Your task to perform on an android device: Open Youtube and go to "Your channel" Image 0: 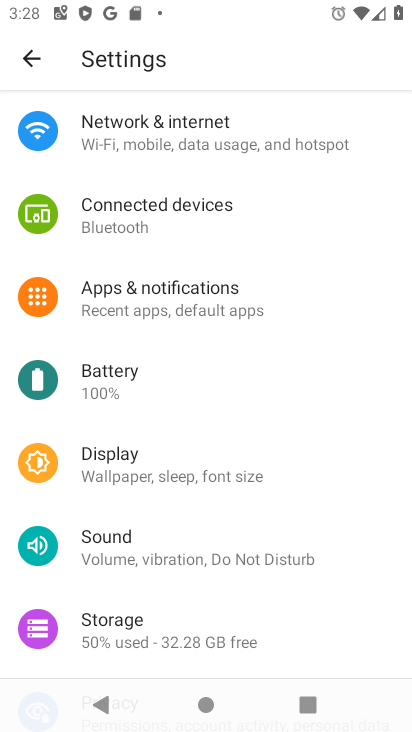
Step 0: press home button
Your task to perform on an android device: Open Youtube and go to "Your channel" Image 1: 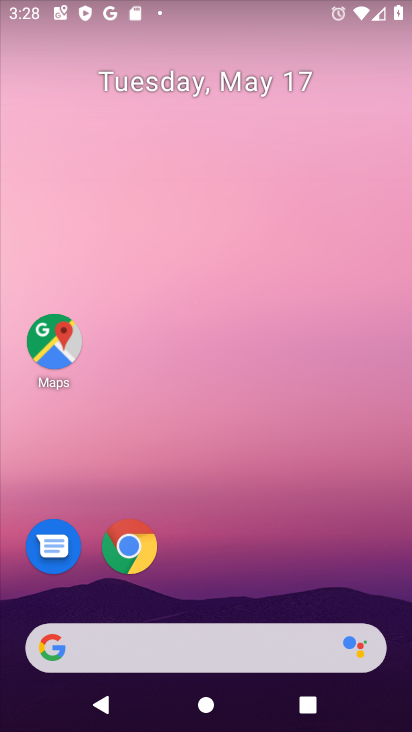
Step 1: drag from (396, 679) to (340, 296)
Your task to perform on an android device: Open Youtube and go to "Your channel" Image 2: 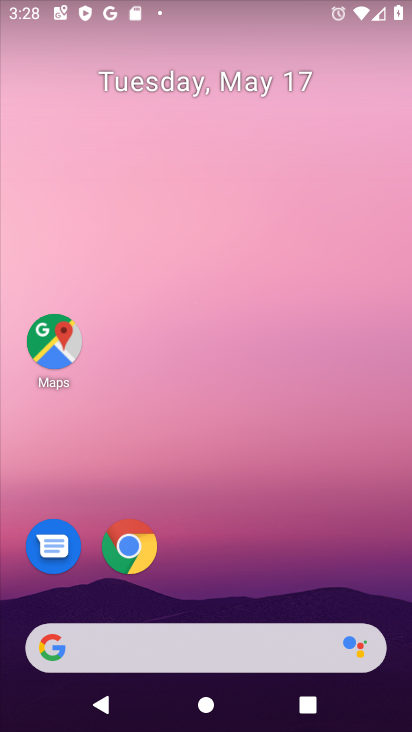
Step 2: drag from (399, 677) to (359, 341)
Your task to perform on an android device: Open Youtube and go to "Your channel" Image 3: 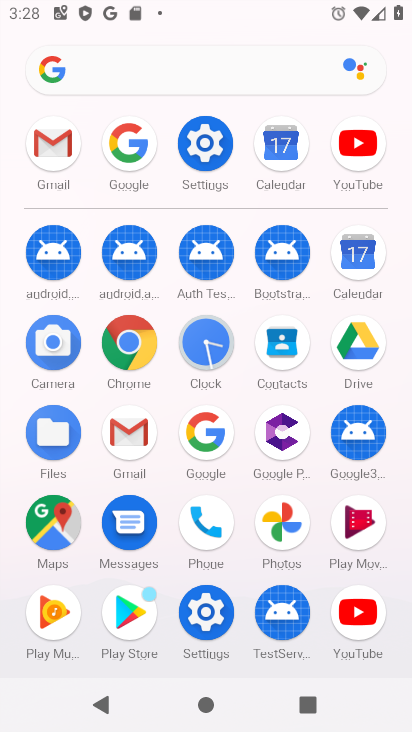
Step 3: click (361, 614)
Your task to perform on an android device: Open Youtube and go to "Your channel" Image 4: 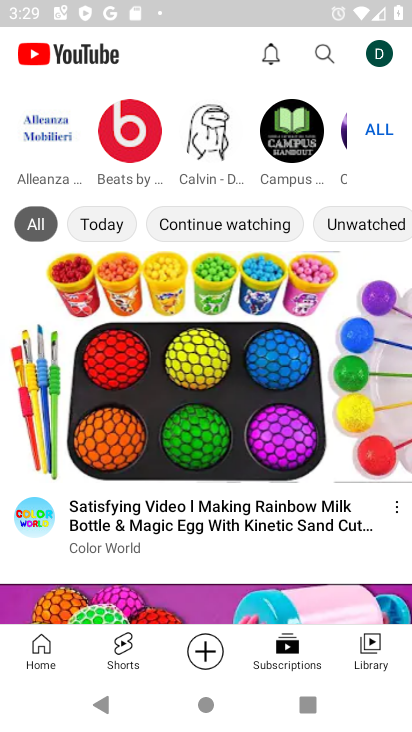
Step 4: click (373, 62)
Your task to perform on an android device: Open Youtube and go to "Your channel" Image 5: 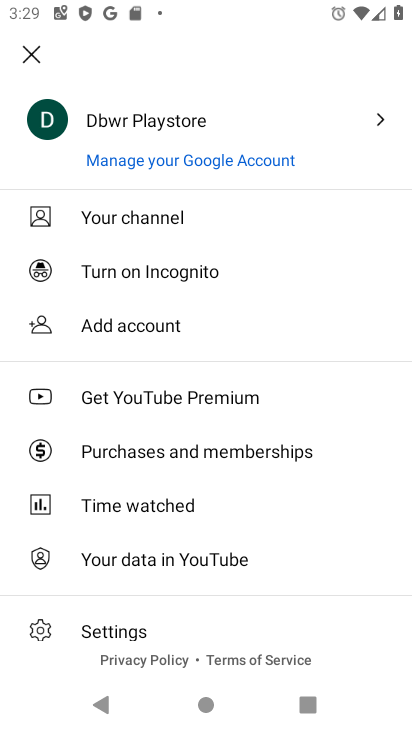
Step 5: click (115, 218)
Your task to perform on an android device: Open Youtube and go to "Your channel" Image 6: 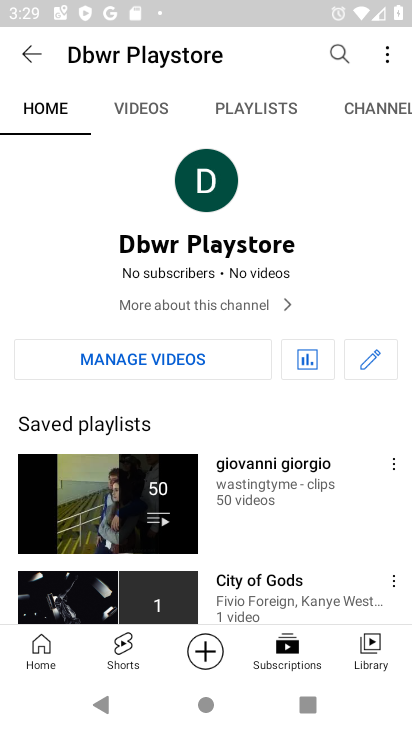
Step 6: task complete